Your task to perform on an android device: Open network settings Image 0: 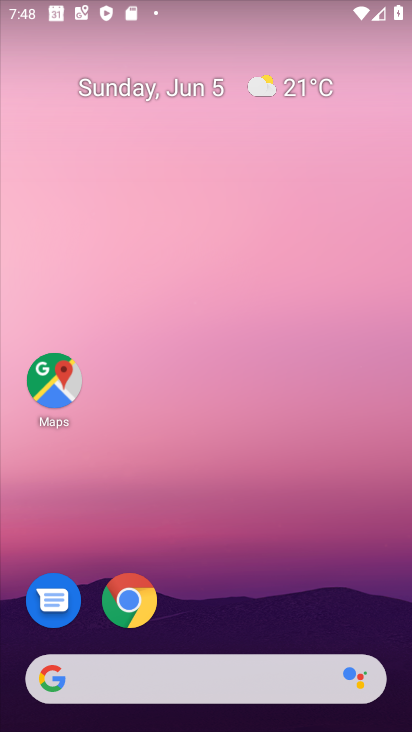
Step 0: drag from (161, 728) to (153, 1)
Your task to perform on an android device: Open network settings Image 1: 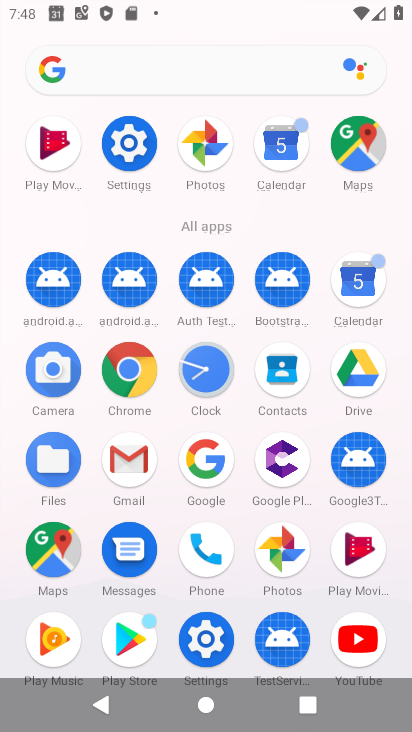
Step 1: click (134, 146)
Your task to perform on an android device: Open network settings Image 2: 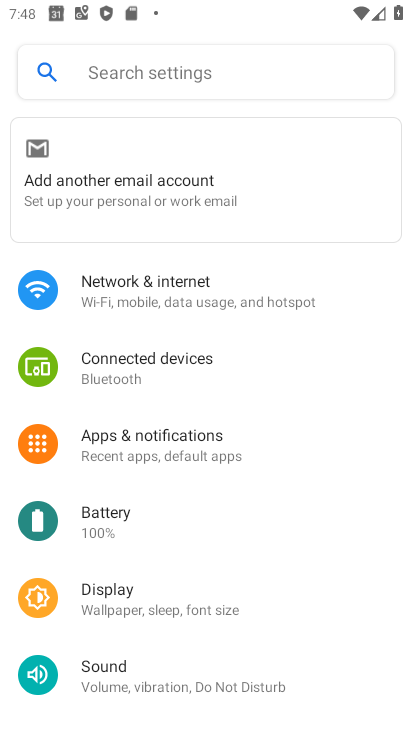
Step 2: click (262, 298)
Your task to perform on an android device: Open network settings Image 3: 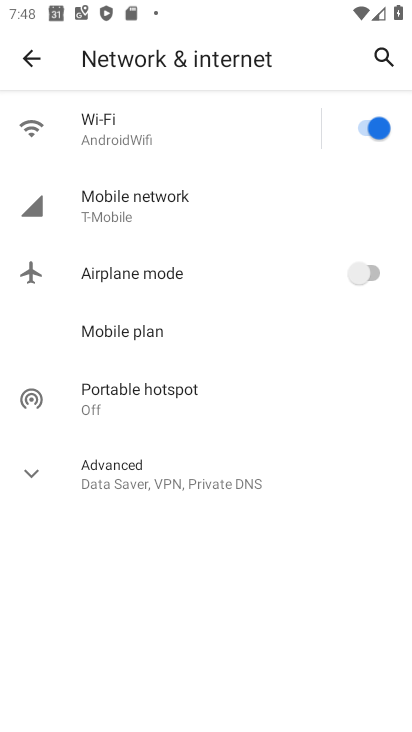
Step 3: click (195, 223)
Your task to perform on an android device: Open network settings Image 4: 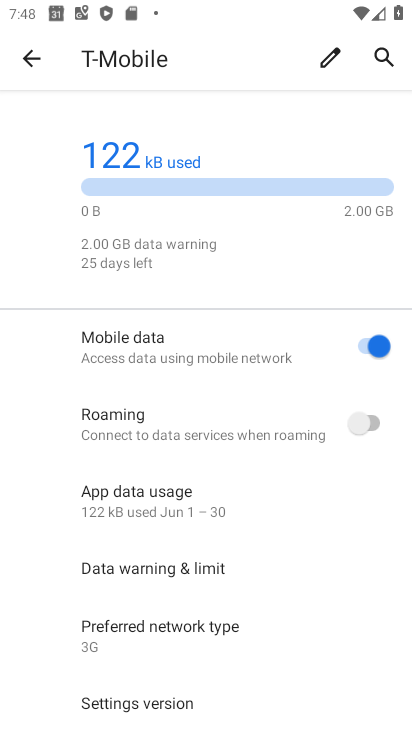
Step 4: drag from (269, 673) to (267, 159)
Your task to perform on an android device: Open network settings Image 5: 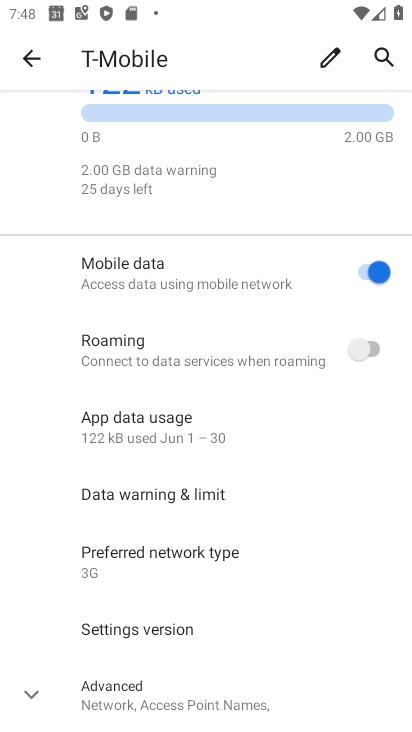
Step 5: click (187, 682)
Your task to perform on an android device: Open network settings Image 6: 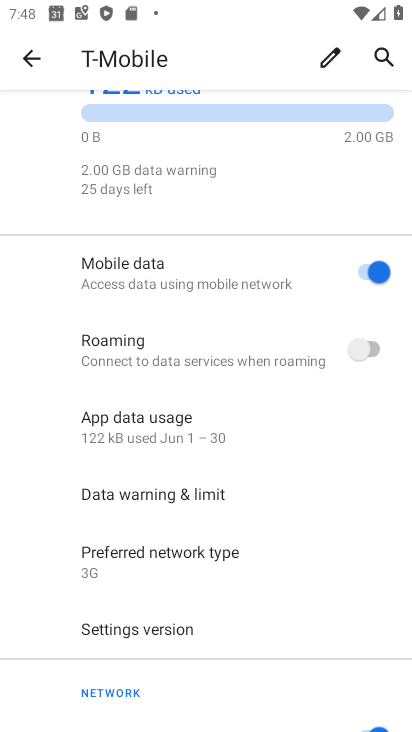
Step 6: task complete